Your task to perform on an android device: empty trash in google photos Image 0: 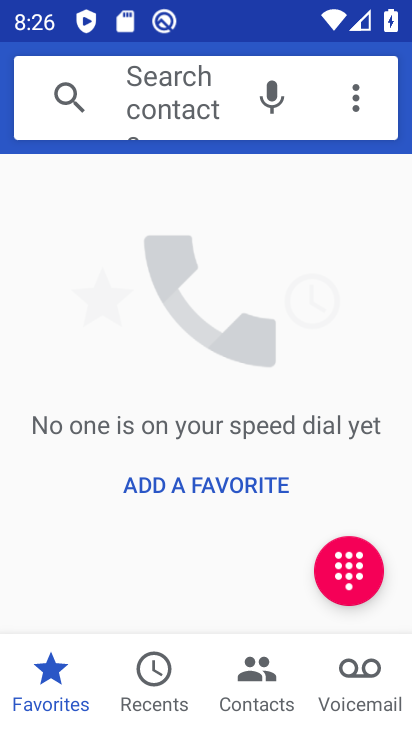
Step 0: press home button
Your task to perform on an android device: empty trash in google photos Image 1: 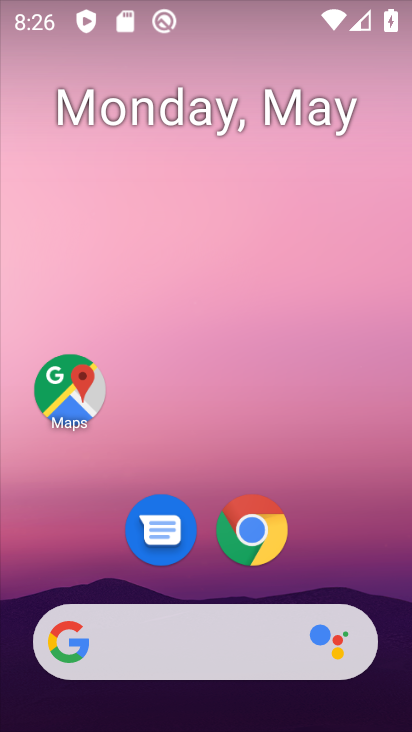
Step 1: drag from (348, 571) to (276, 64)
Your task to perform on an android device: empty trash in google photos Image 2: 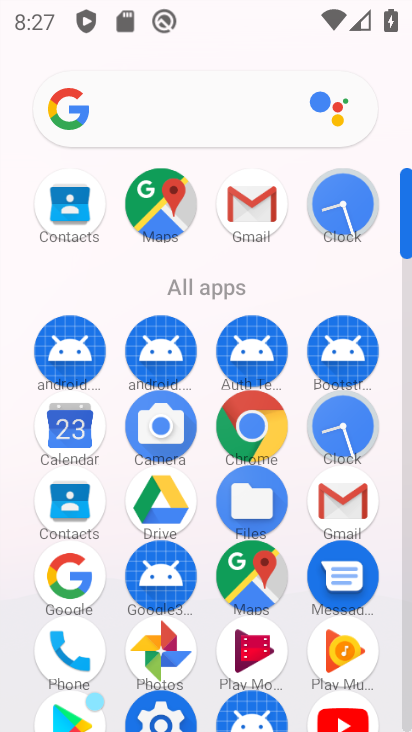
Step 2: click (172, 649)
Your task to perform on an android device: empty trash in google photos Image 3: 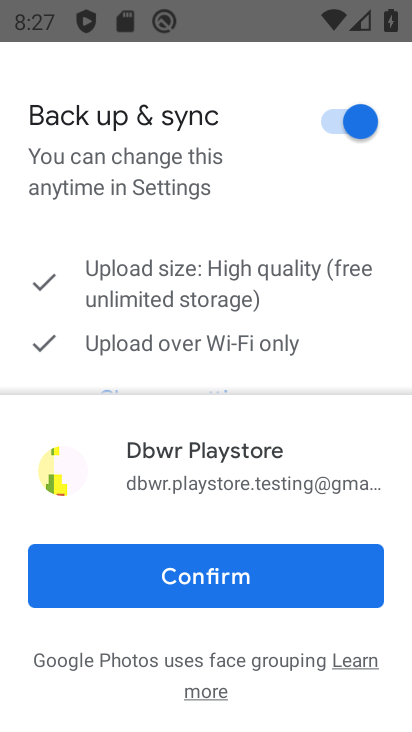
Step 3: click (225, 591)
Your task to perform on an android device: empty trash in google photos Image 4: 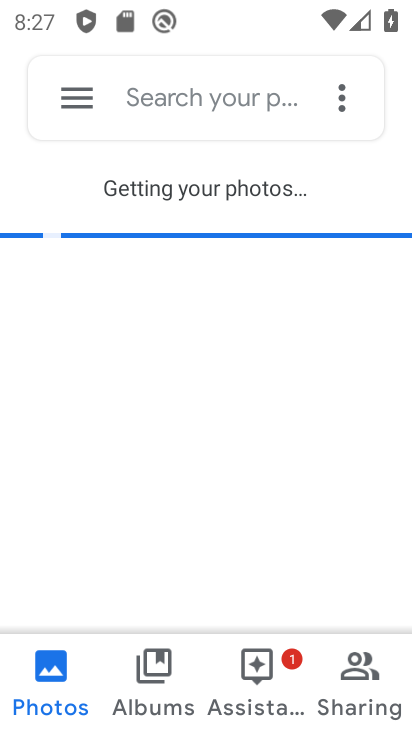
Step 4: click (88, 104)
Your task to perform on an android device: empty trash in google photos Image 5: 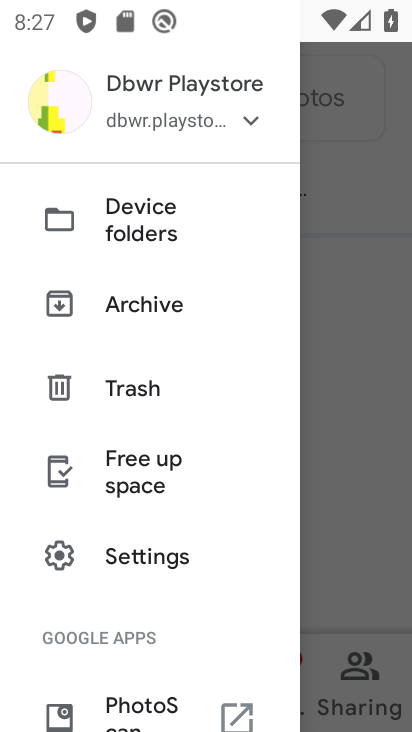
Step 5: click (127, 375)
Your task to perform on an android device: empty trash in google photos Image 6: 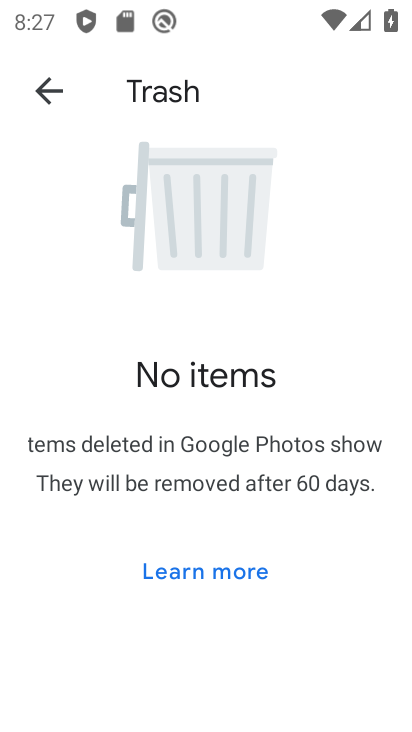
Step 6: task complete